Your task to perform on an android device: open app "Venmo" (install if not already installed) Image 0: 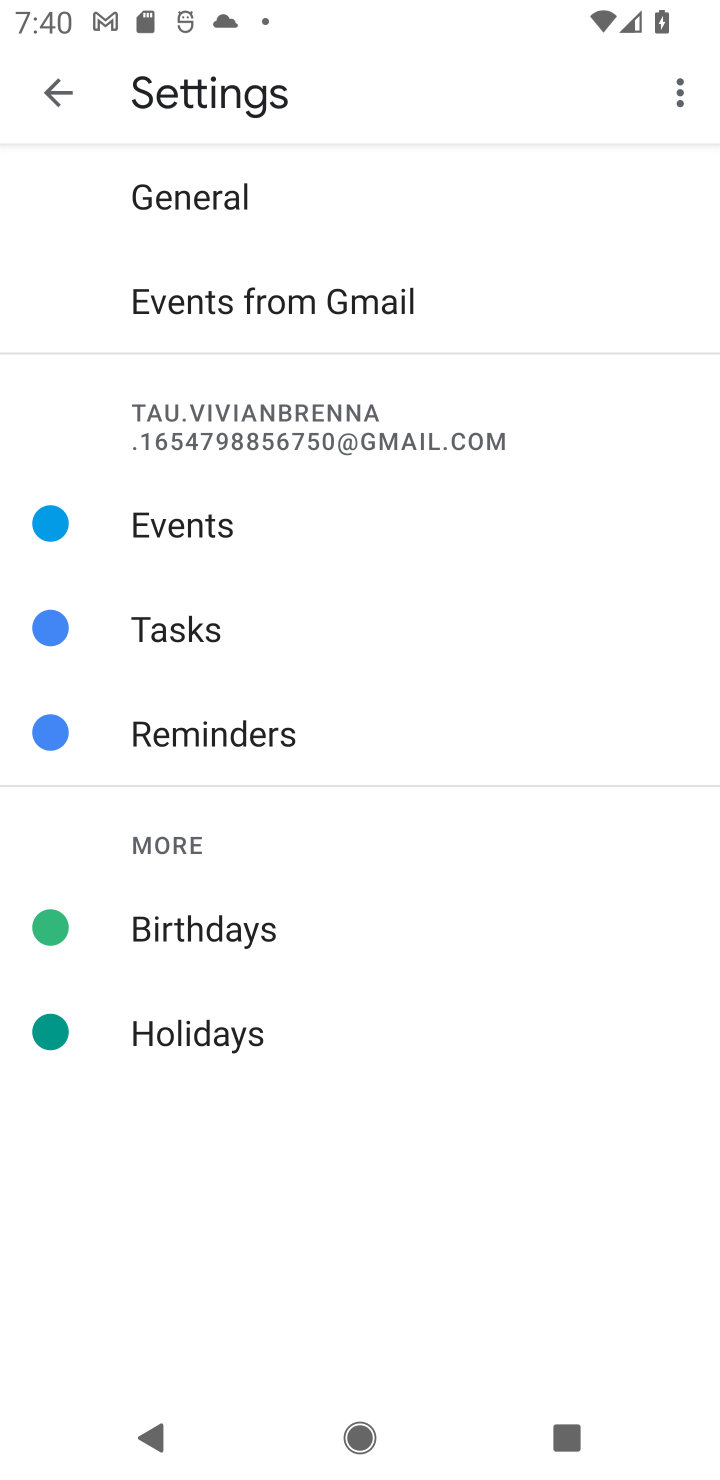
Step 0: press home button
Your task to perform on an android device: open app "Venmo" (install if not already installed) Image 1: 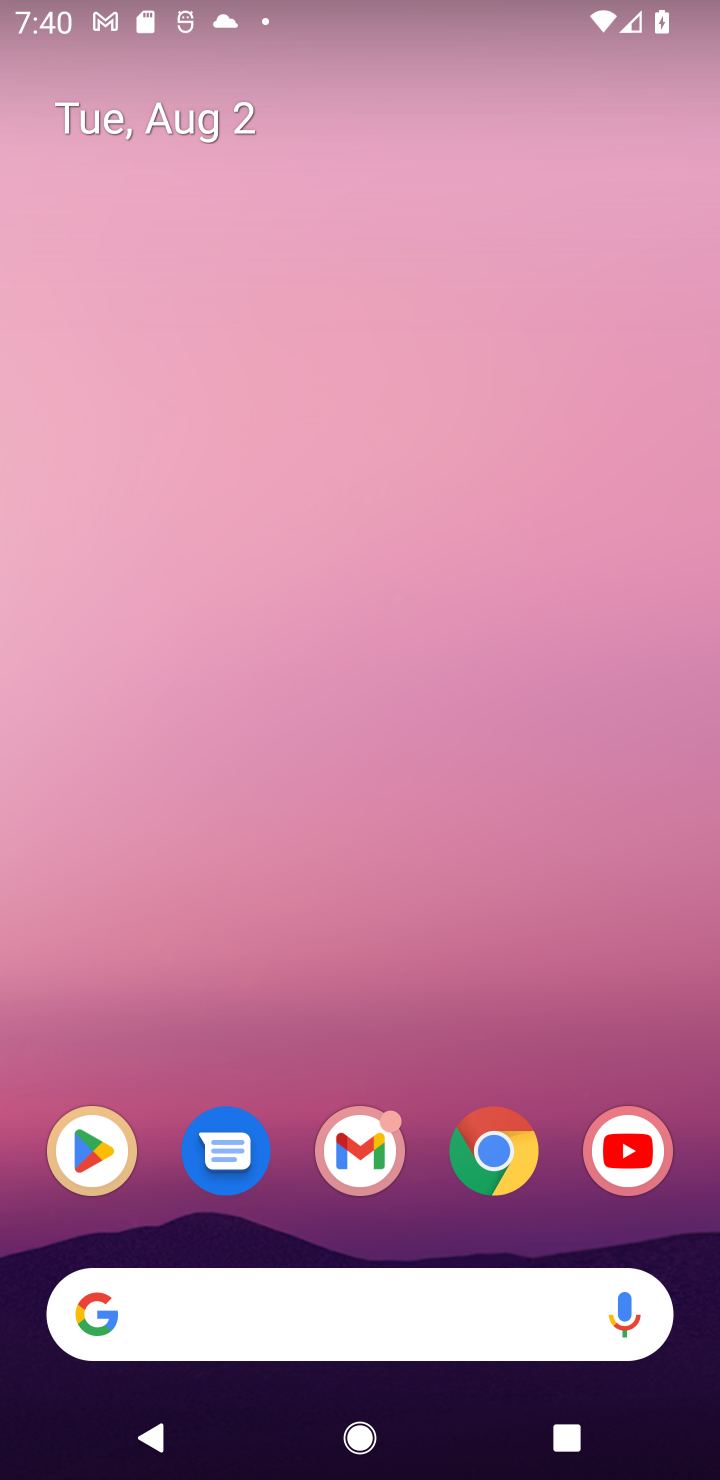
Step 1: click (33, 1133)
Your task to perform on an android device: open app "Venmo" (install if not already installed) Image 2: 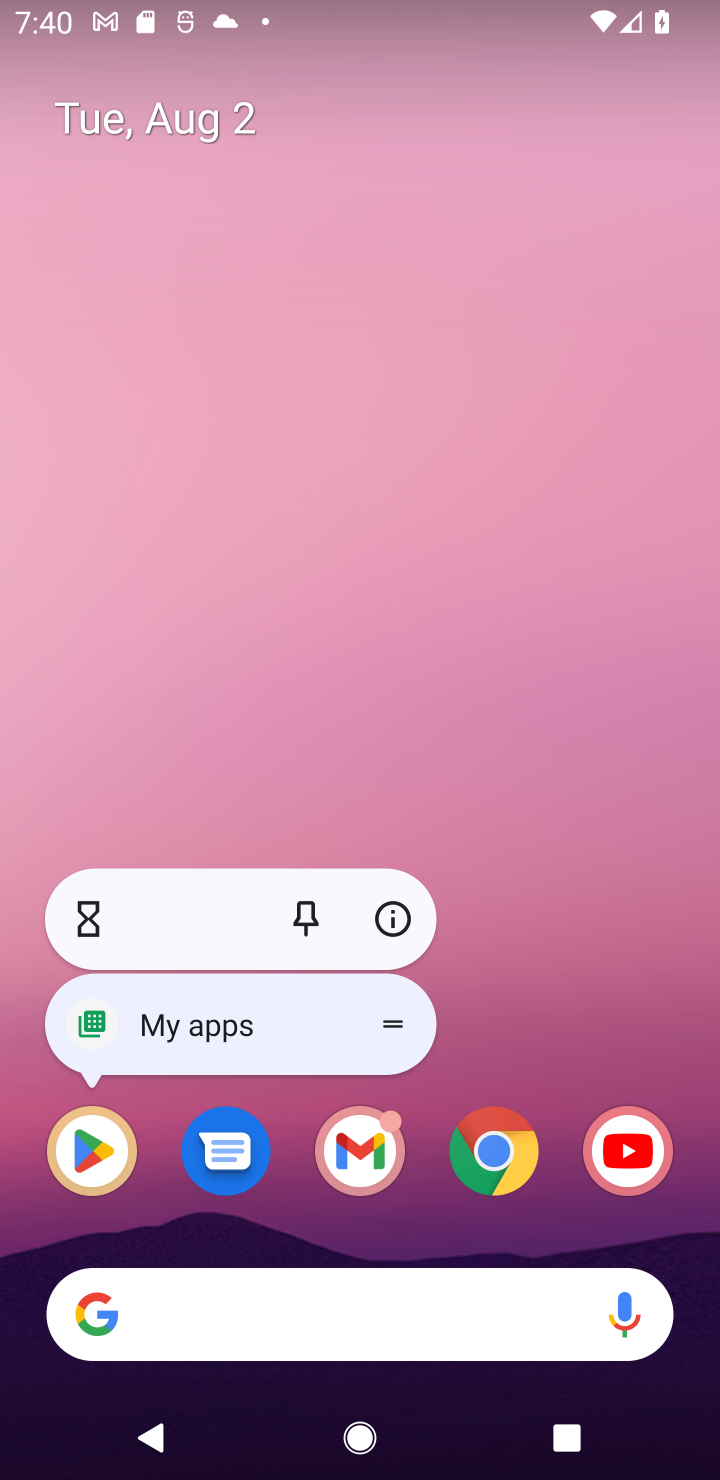
Step 2: click (67, 1141)
Your task to perform on an android device: open app "Venmo" (install if not already installed) Image 3: 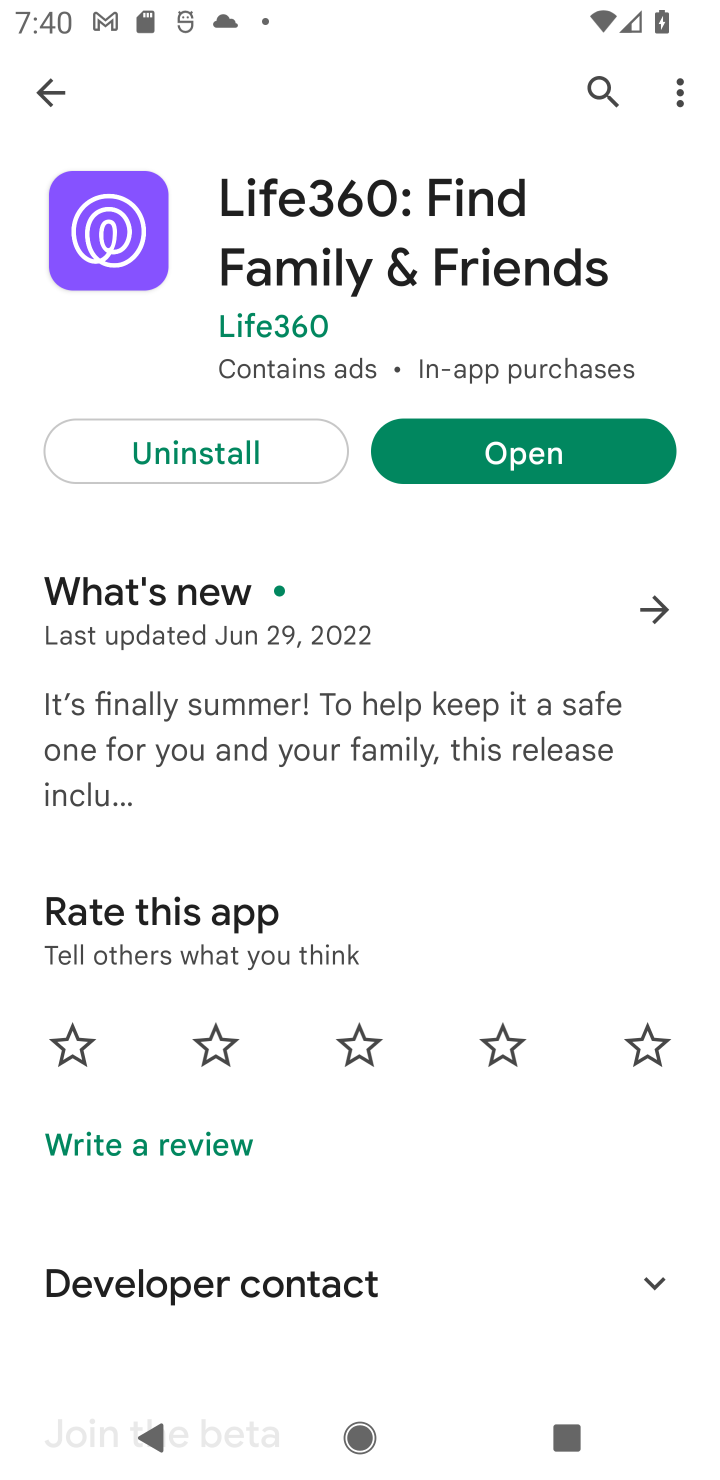
Step 3: click (592, 86)
Your task to perform on an android device: open app "Venmo" (install if not already installed) Image 4: 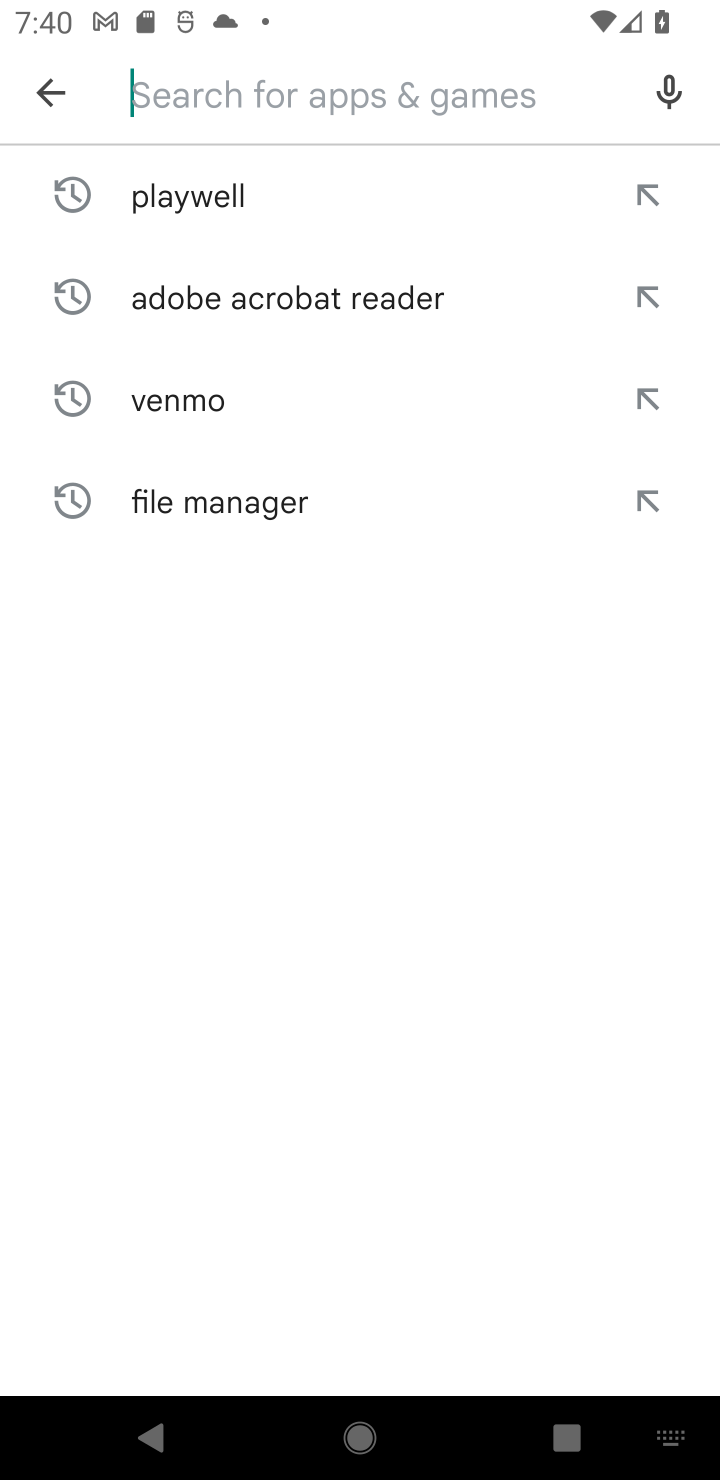
Step 4: type "Venmo"
Your task to perform on an android device: open app "Venmo" (install if not already installed) Image 5: 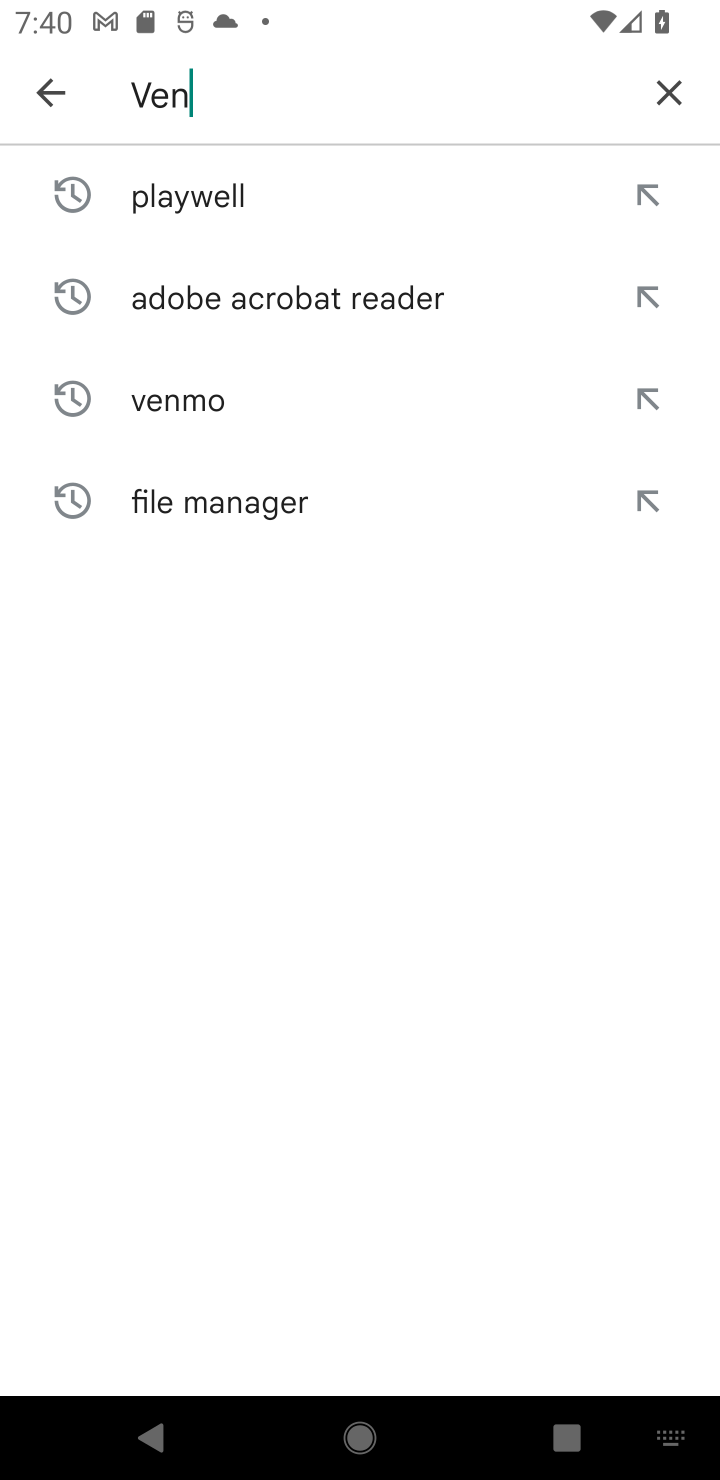
Step 5: type ""
Your task to perform on an android device: open app "Venmo" (install if not already installed) Image 6: 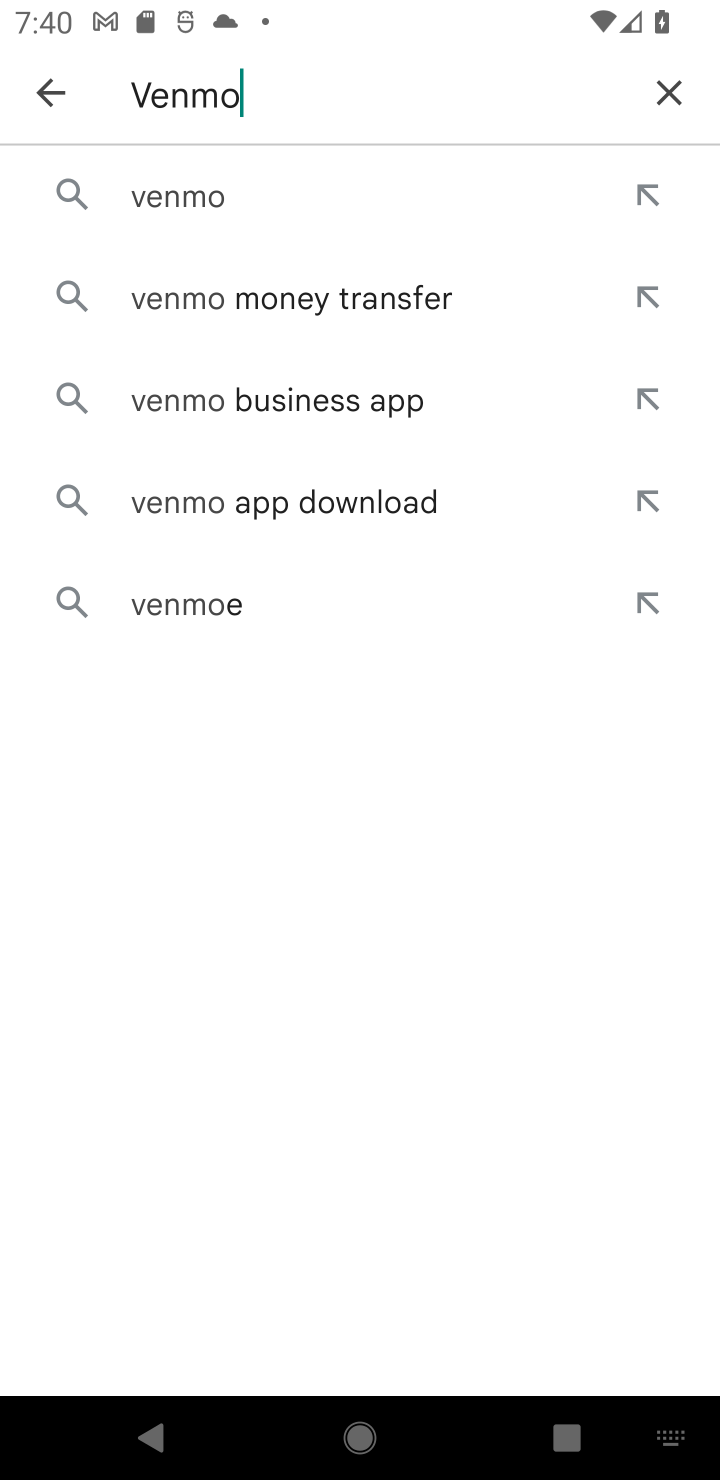
Step 6: click (211, 195)
Your task to perform on an android device: open app "Venmo" (install if not already installed) Image 7: 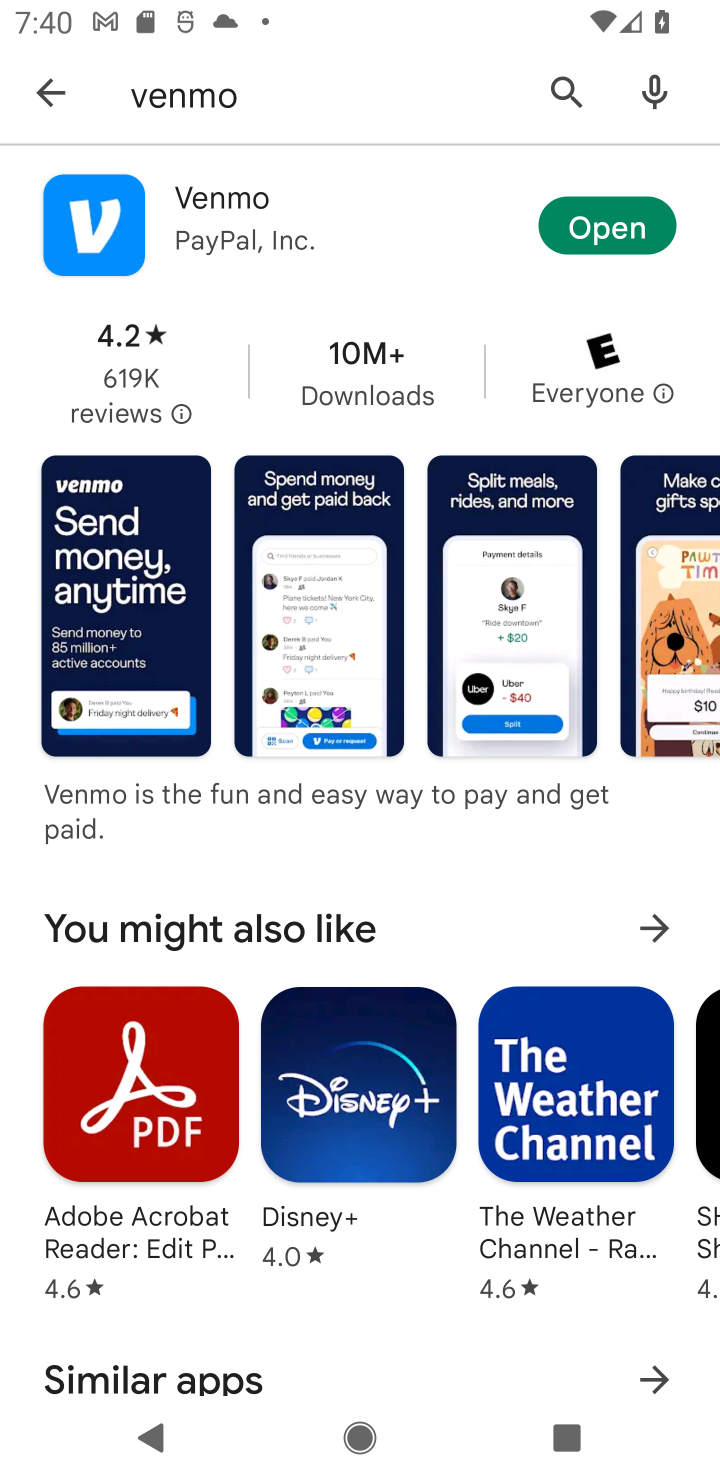
Step 7: click (562, 236)
Your task to perform on an android device: open app "Venmo" (install if not already installed) Image 8: 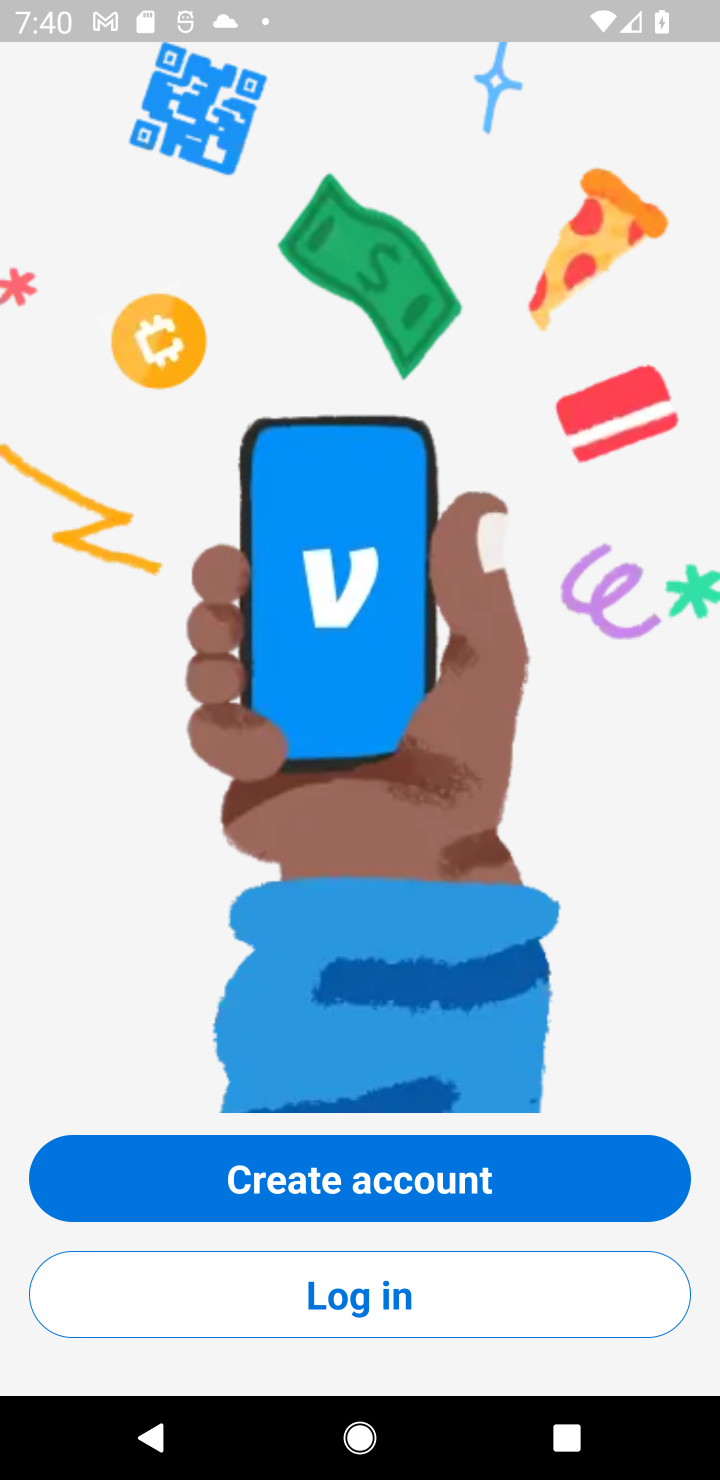
Step 8: task complete